Your task to perform on an android device: Open Google Chrome and open the bookmarks view Image 0: 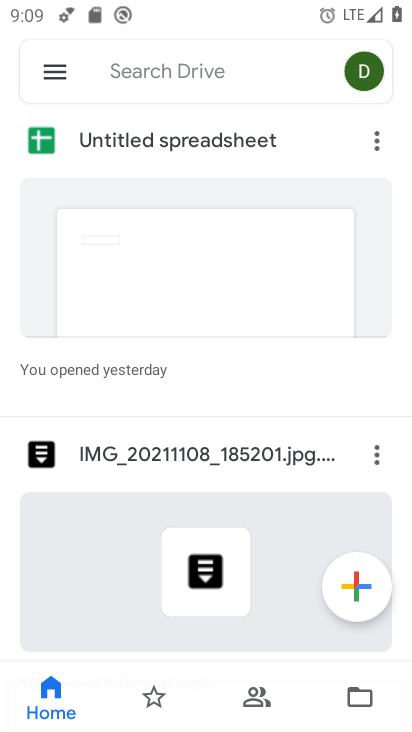
Step 0: press home button
Your task to perform on an android device: Open Google Chrome and open the bookmarks view Image 1: 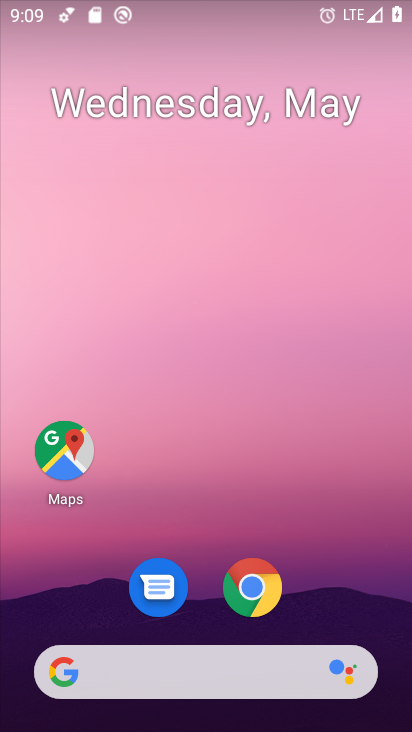
Step 1: drag from (204, 596) to (338, 24)
Your task to perform on an android device: Open Google Chrome and open the bookmarks view Image 2: 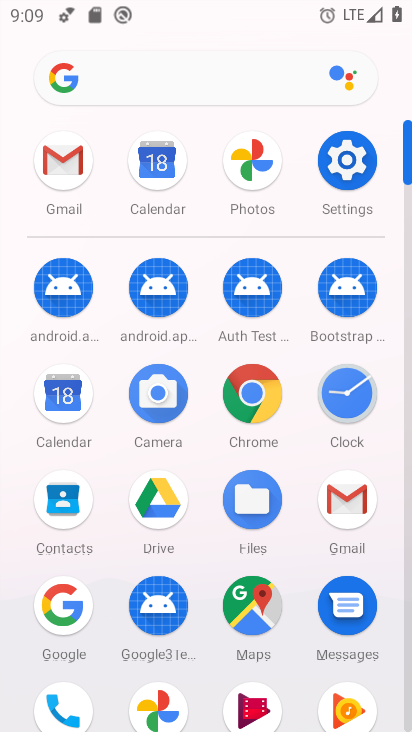
Step 2: click (260, 410)
Your task to perform on an android device: Open Google Chrome and open the bookmarks view Image 3: 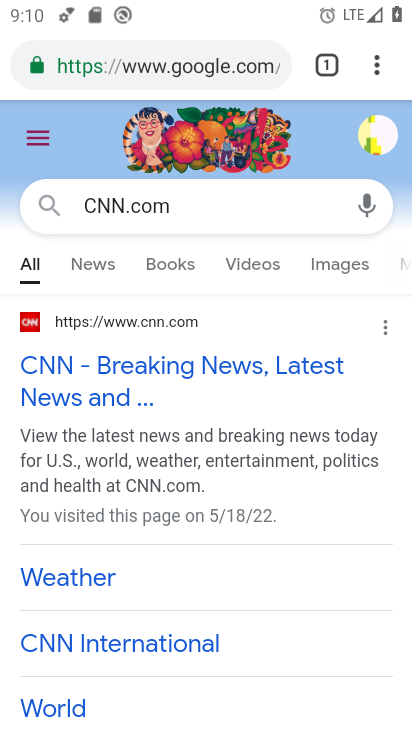
Step 3: click (380, 81)
Your task to perform on an android device: Open Google Chrome and open the bookmarks view Image 4: 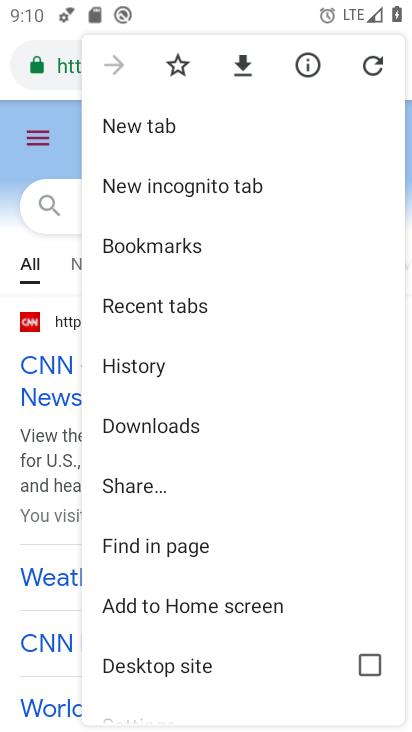
Step 4: click (153, 236)
Your task to perform on an android device: Open Google Chrome and open the bookmarks view Image 5: 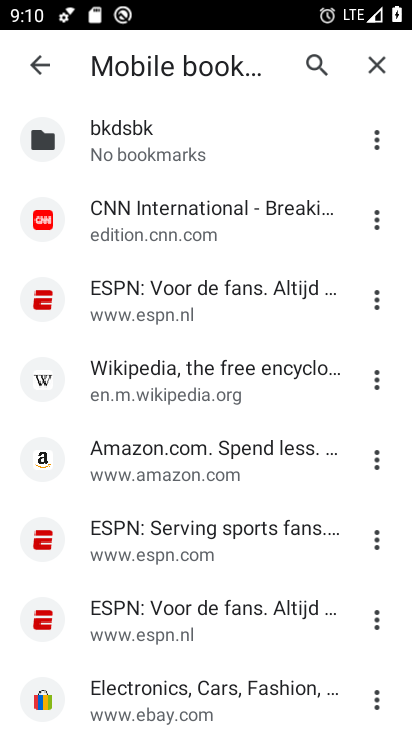
Step 5: task complete